Your task to perform on an android device: Go to Android settings Image 0: 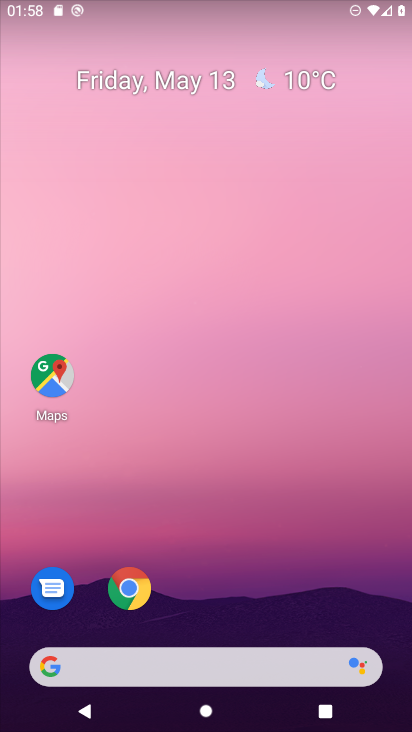
Step 0: press home button
Your task to perform on an android device: Go to Android settings Image 1: 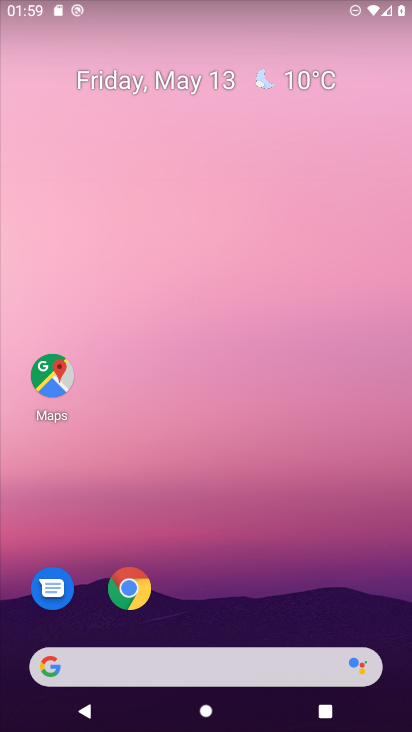
Step 1: drag from (252, 596) to (363, 115)
Your task to perform on an android device: Go to Android settings Image 2: 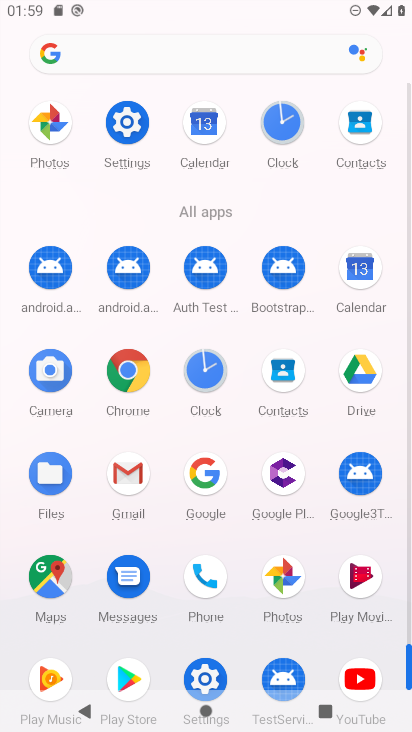
Step 2: click (209, 673)
Your task to perform on an android device: Go to Android settings Image 3: 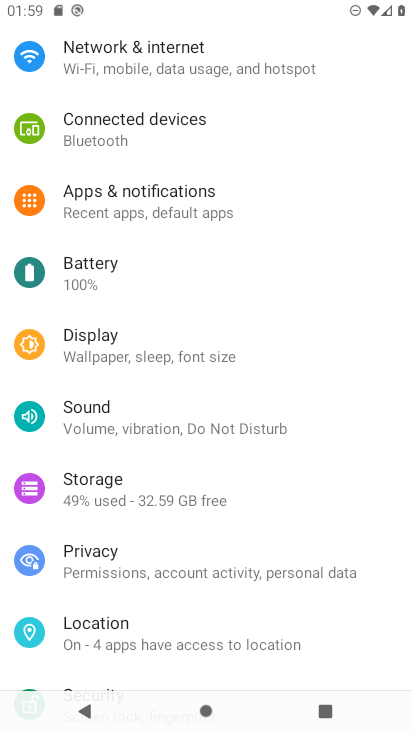
Step 3: drag from (339, 613) to (388, 170)
Your task to perform on an android device: Go to Android settings Image 4: 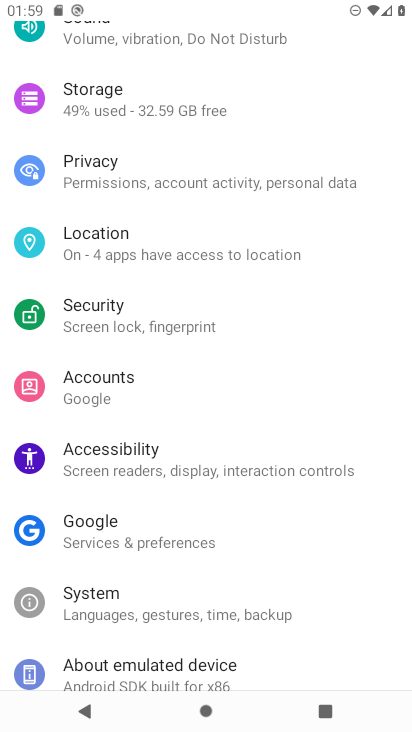
Step 4: drag from (322, 643) to (402, 147)
Your task to perform on an android device: Go to Android settings Image 5: 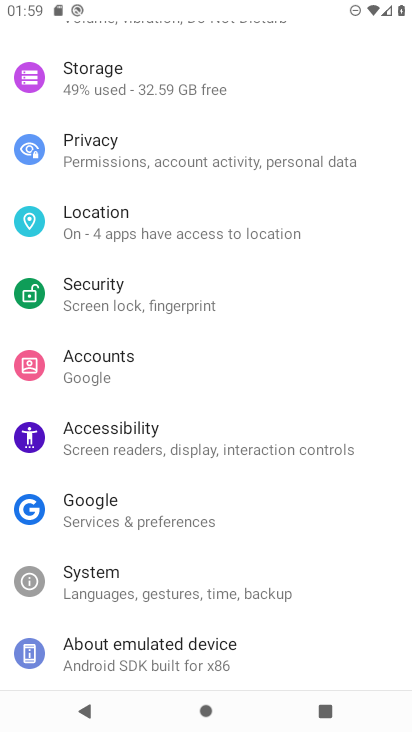
Step 5: click (211, 647)
Your task to perform on an android device: Go to Android settings Image 6: 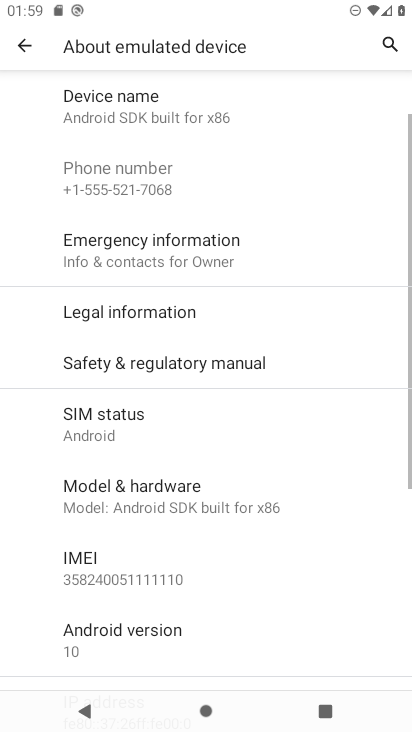
Step 6: click (132, 645)
Your task to perform on an android device: Go to Android settings Image 7: 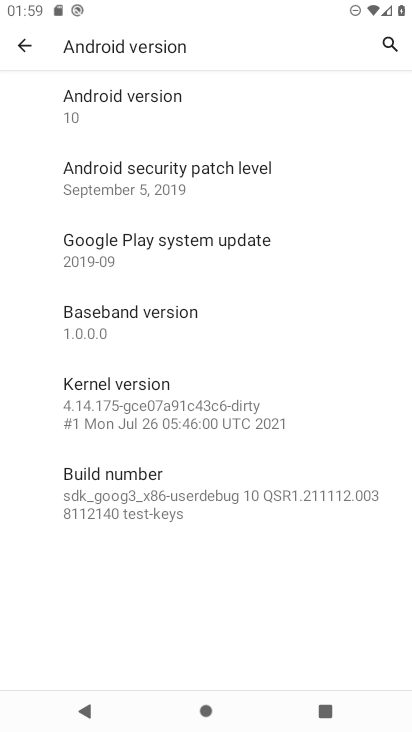
Step 7: task complete